Your task to perform on an android device: open a bookmark in the chrome app Image 0: 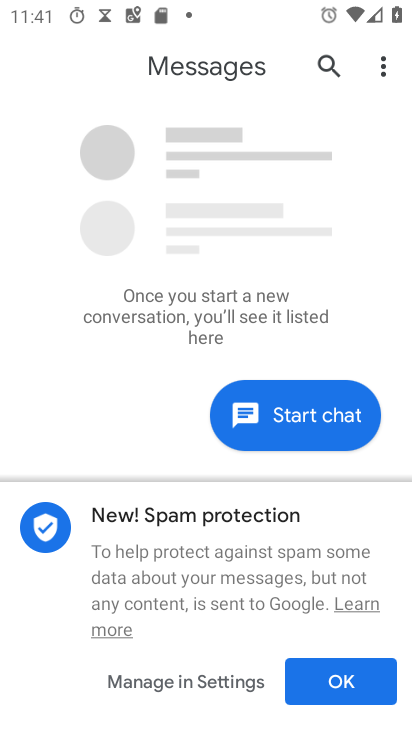
Step 0: press home button
Your task to perform on an android device: open a bookmark in the chrome app Image 1: 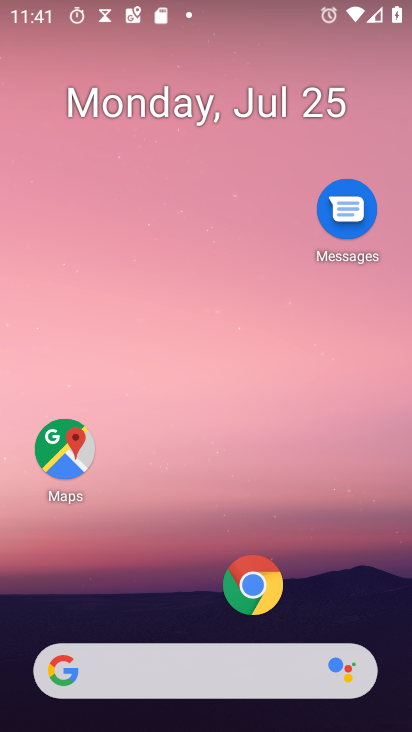
Step 1: click (260, 594)
Your task to perform on an android device: open a bookmark in the chrome app Image 2: 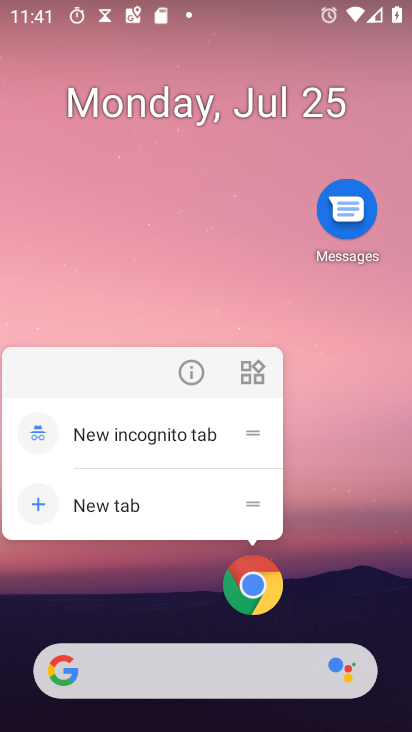
Step 2: click (259, 584)
Your task to perform on an android device: open a bookmark in the chrome app Image 3: 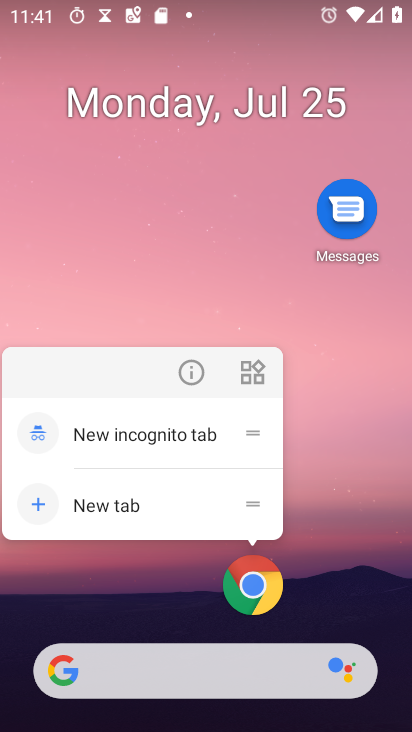
Step 3: click (259, 584)
Your task to perform on an android device: open a bookmark in the chrome app Image 4: 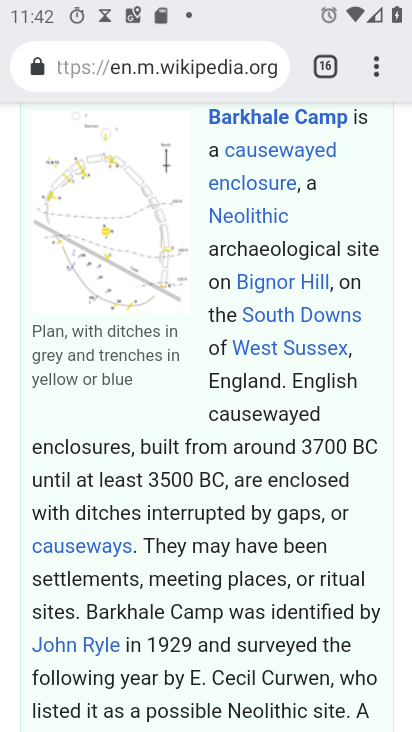
Step 4: task complete